Your task to perform on an android device: Go to ESPN.com Image 0: 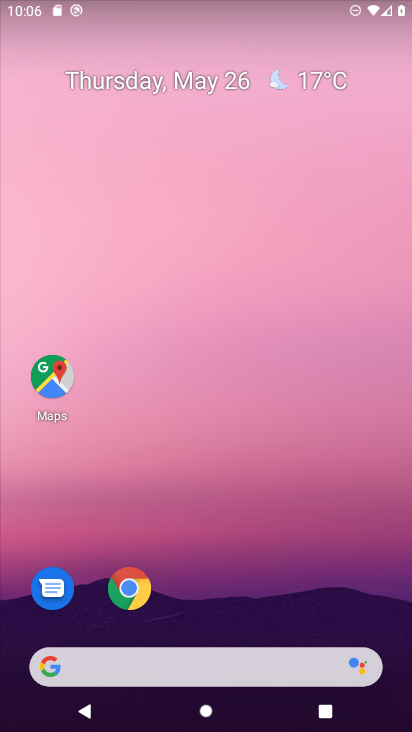
Step 0: click (131, 591)
Your task to perform on an android device: Go to ESPN.com Image 1: 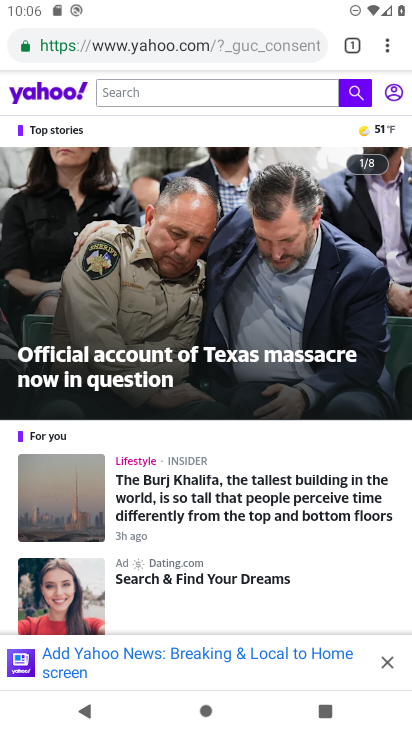
Step 1: click (265, 48)
Your task to perform on an android device: Go to ESPN.com Image 2: 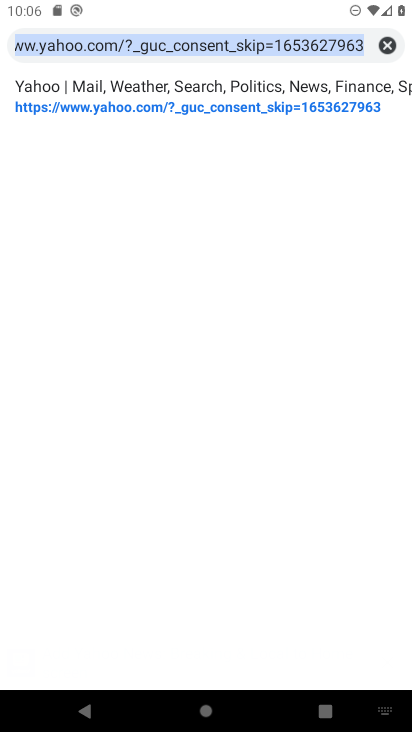
Step 2: click (385, 45)
Your task to perform on an android device: Go to ESPN.com Image 3: 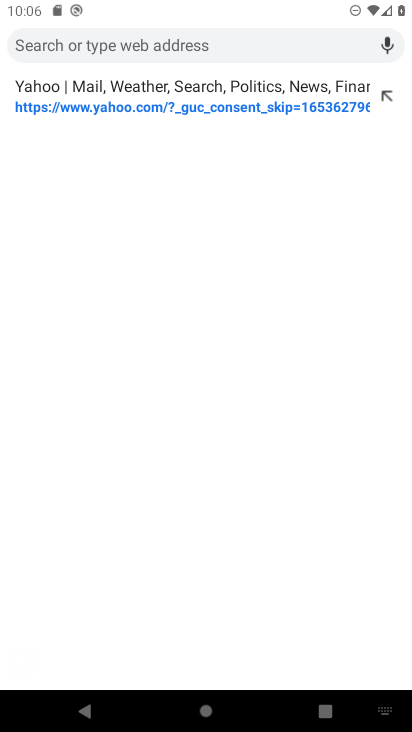
Step 3: type "espn.com"
Your task to perform on an android device: Go to ESPN.com Image 4: 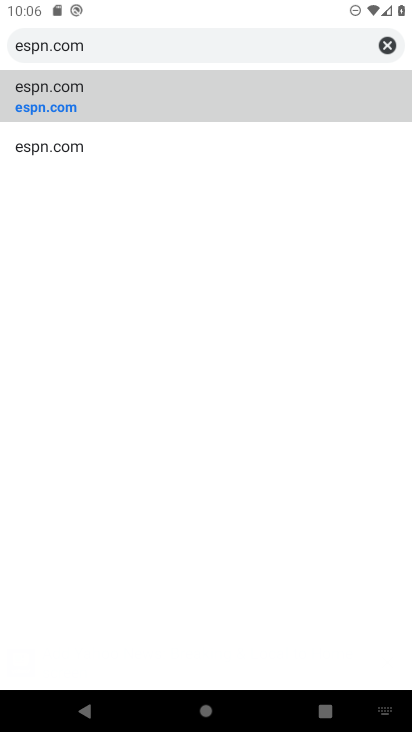
Step 4: click (68, 94)
Your task to perform on an android device: Go to ESPN.com Image 5: 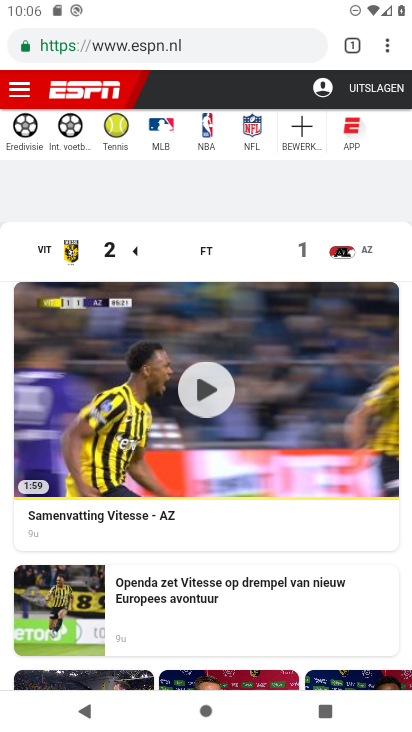
Step 5: task complete